Your task to perform on an android device: turn on translation in the chrome app Image 0: 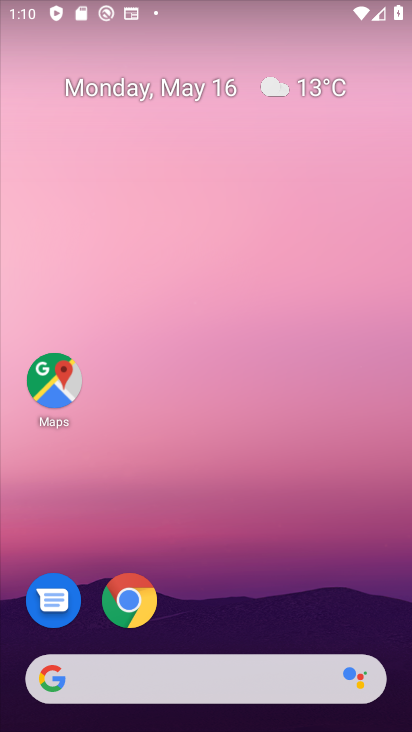
Step 0: click (141, 606)
Your task to perform on an android device: turn on translation in the chrome app Image 1: 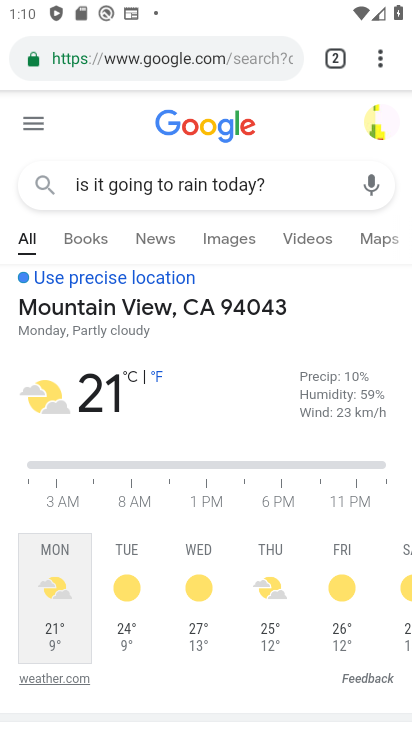
Step 1: click (380, 59)
Your task to perform on an android device: turn on translation in the chrome app Image 2: 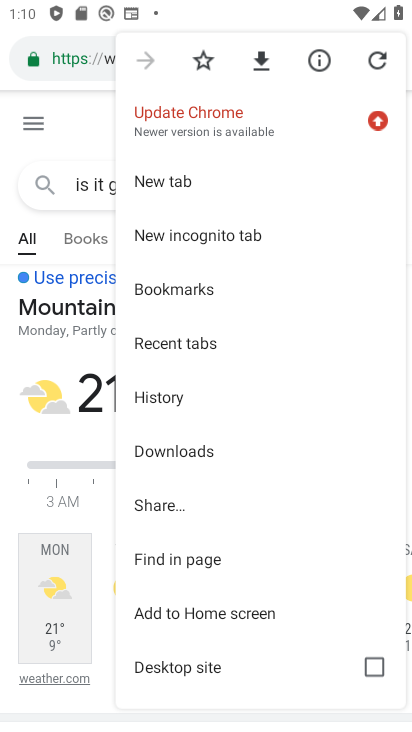
Step 2: drag from (212, 670) to (198, 326)
Your task to perform on an android device: turn on translation in the chrome app Image 3: 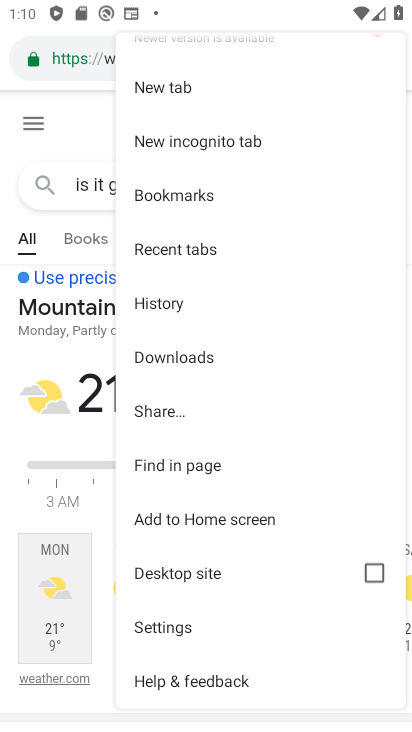
Step 3: click (162, 630)
Your task to perform on an android device: turn on translation in the chrome app Image 4: 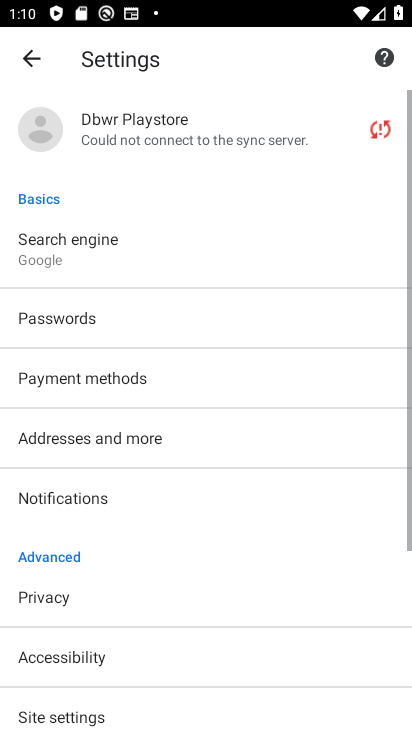
Step 4: drag from (163, 590) to (144, 256)
Your task to perform on an android device: turn on translation in the chrome app Image 5: 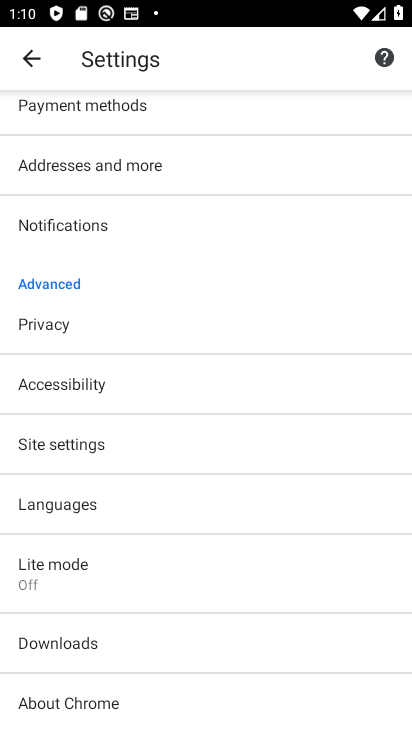
Step 5: click (75, 501)
Your task to perform on an android device: turn on translation in the chrome app Image 6: 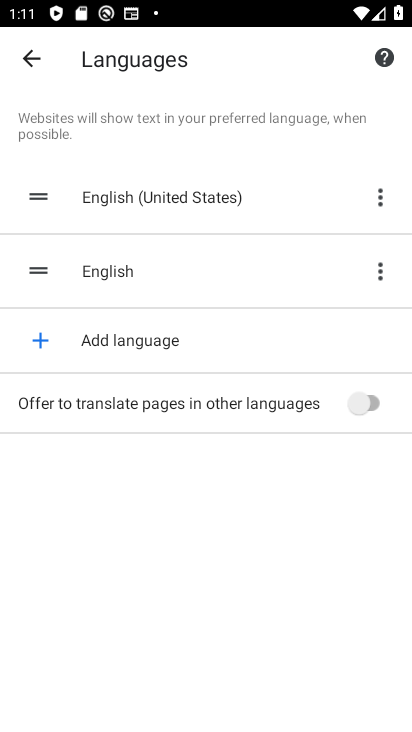
Step 6: click (359, 406)
Your task to perform on an android device: turn on translation in the chrome app Image 7: 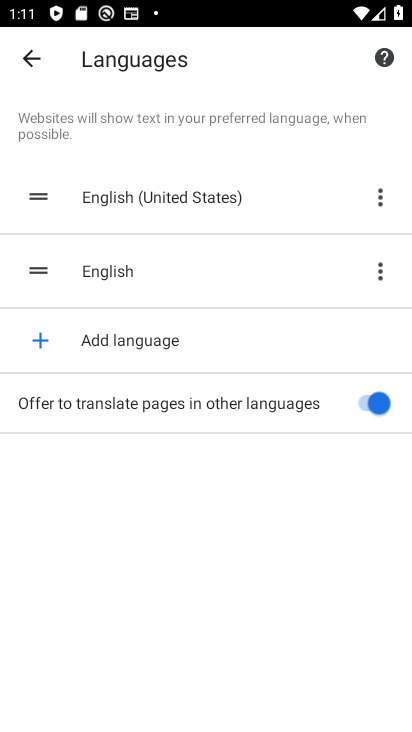
Step 7: task complete